Your task to perform on an android device: Open sound settings Image 0: 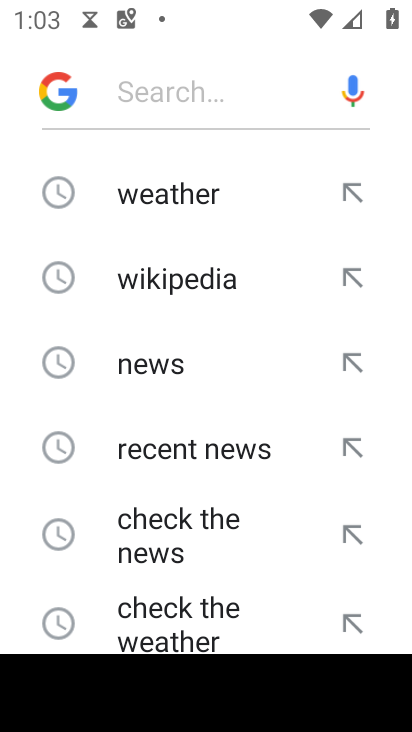
Step 0: press home button
Your task to perform on an android device: Open sound settings Image 1: 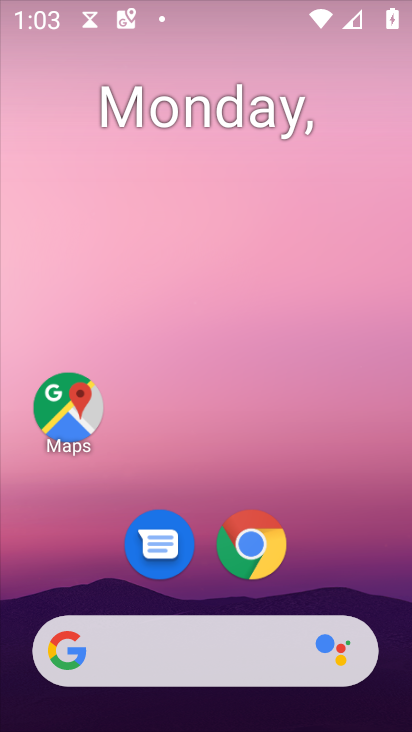
Step 1: drag from (221, 572) to (237, 225)
Your task to perform on an android device: Open sound settings Image 2: 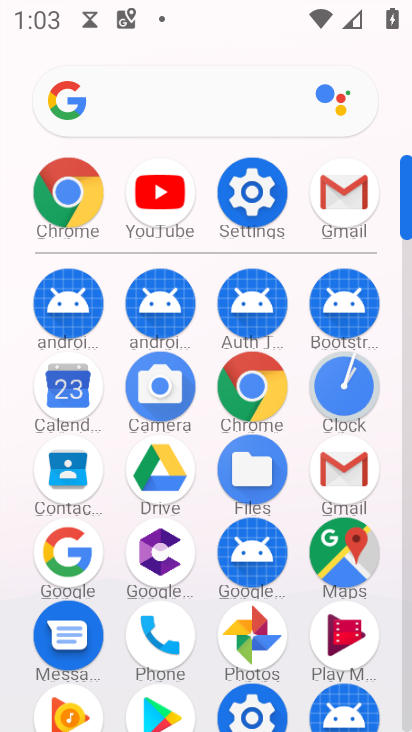
Step 2: click (237, 204)
Your task to perform on an android device: Open sound settings Image 3: 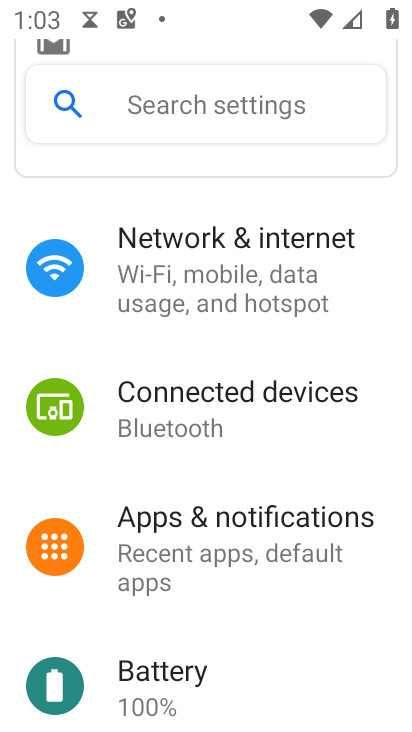
Step 3: drag from (208, 630) to (245, 298)
Your task to perform on an android device: Open sound settings Image 4: 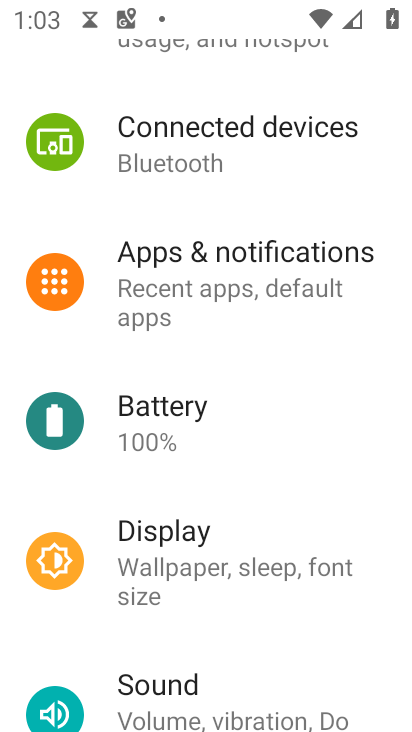
Step 4: click (201, 693)
Your task to perform on an android device: Open sound settings Image 5: 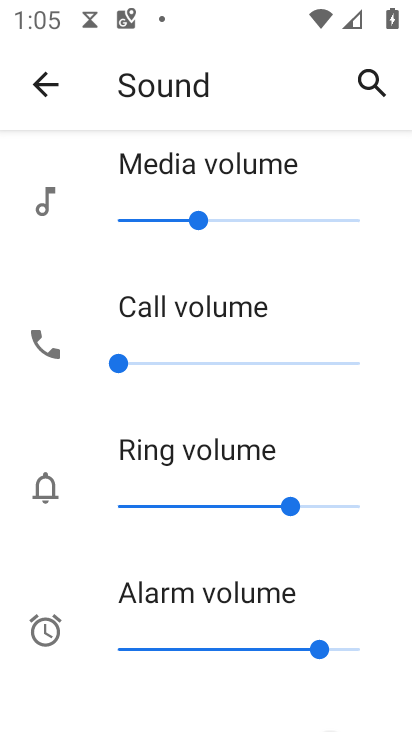
Step 5: task complete